Your task to perform on an android device: Open calendar and show me the second week of next month Image 0: 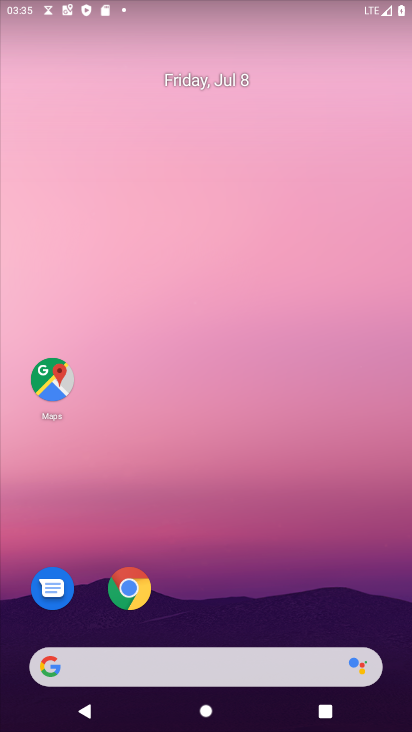
Step 0: drag from (194, 459) to (193, 167)
Your task to perform on an android device: Open calendar and show me the second week of next month Image 1: 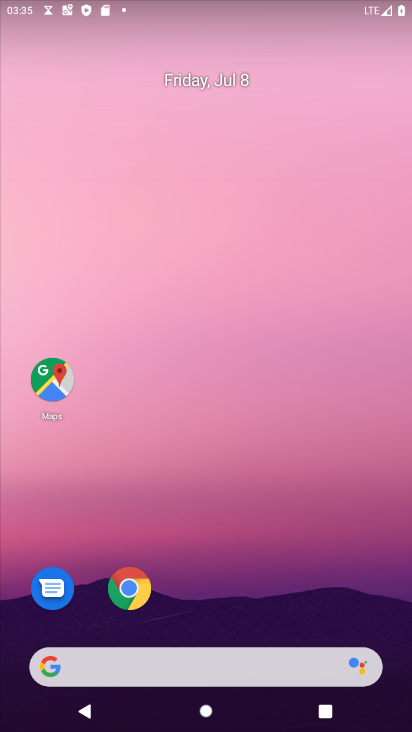
Step 1: drag from (197, 582) to (194, 6)
Your task to perform on an android device: Open calendar and show me the second week of next month Image 2: 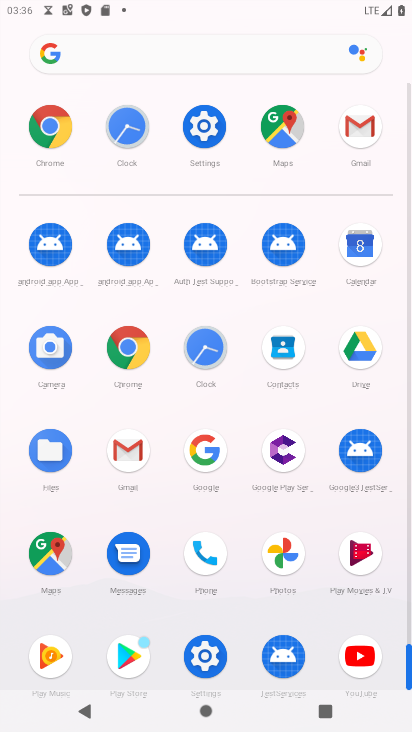
Step 2: click (360, 247)
Your task to perform on an android device: Open calendar and show me the second week of next month Image 3: 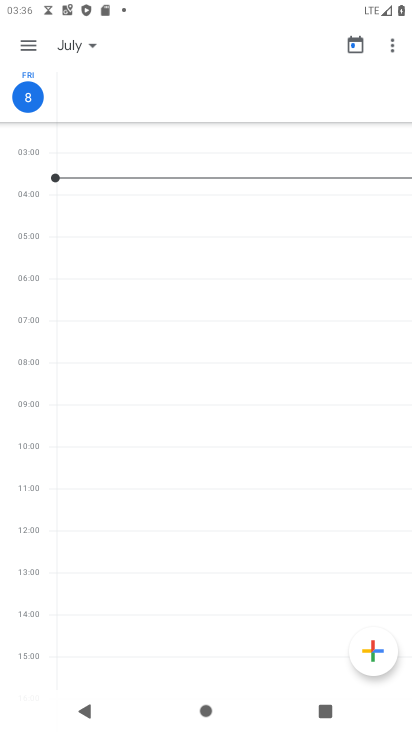
Step 3: click (64, 48)
Your task to perform on an android device: Open calendar and show me the second week of next month Image 4: 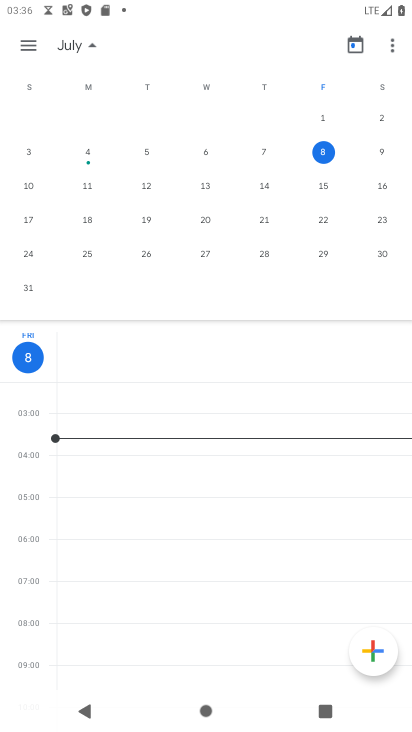
Step 4: click (8, 151)
Your task to perform on an android device: Open calendar and show me the second week of next month Image 5: 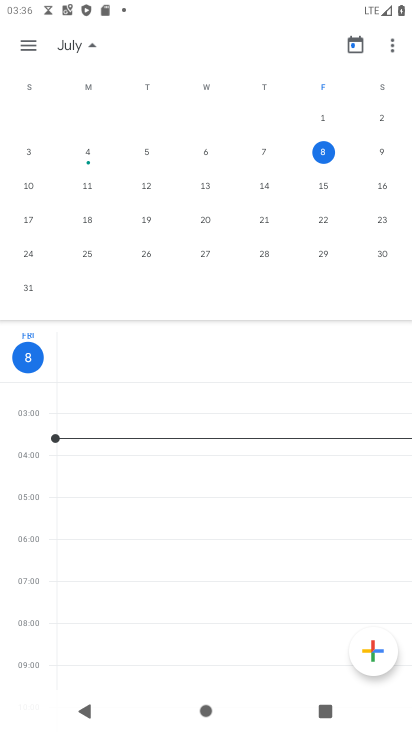
Step 5: drag from (309, 200) to (5, 200)
Your task to perform on an android device: Open calendar and show me the second week of next month Image 6: 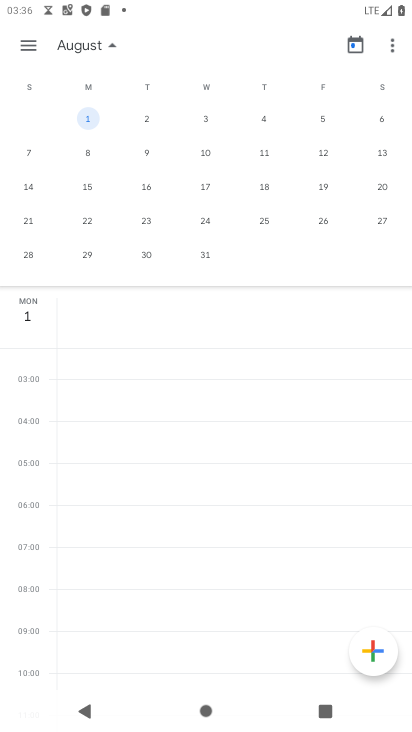
Step 6: click (31, 148)
Your task to perform on an android device: Open calendar and show me the second week of next month Image 7: 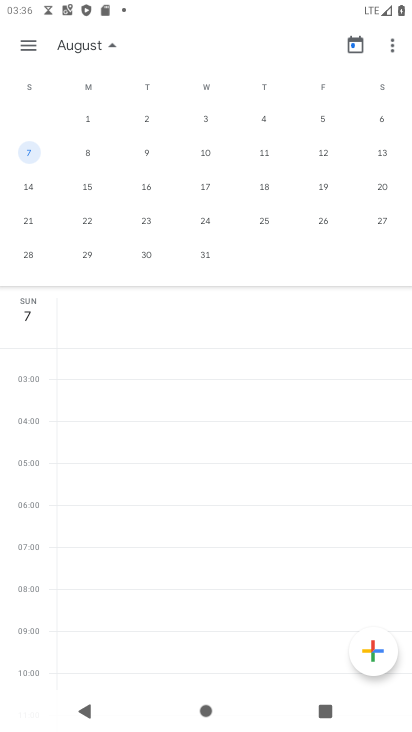
Step 7: drag from (152, 406) to (238, 140)
Your task to perform on an android device: Open calendar and show me the second week of next month Image 8: 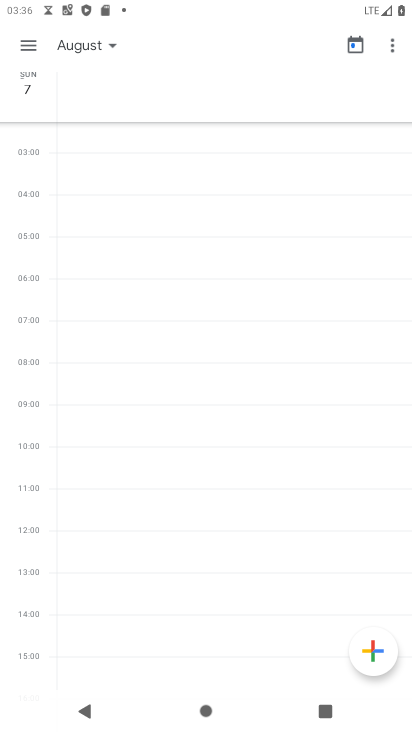
Step 8: click (35, 46)
Your task to perform on an android device: Open calendar and show me the second week of next month Image 9: 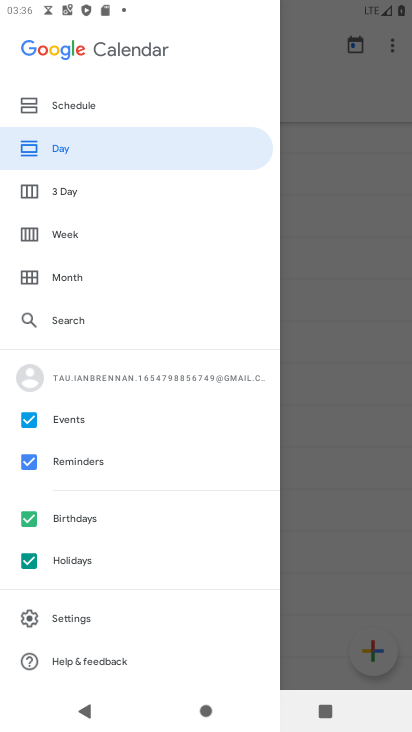
Step 9: click (65, 230)
Your task to perform on an android device: Open calendar and show me the second week of next month Image 10: 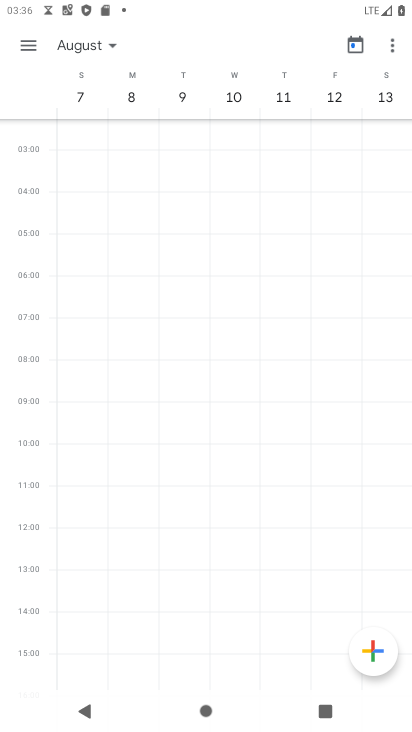
Step 10: task complete